Your task to perform on an android device: What's the weather going to be tomorrow? Image 0: 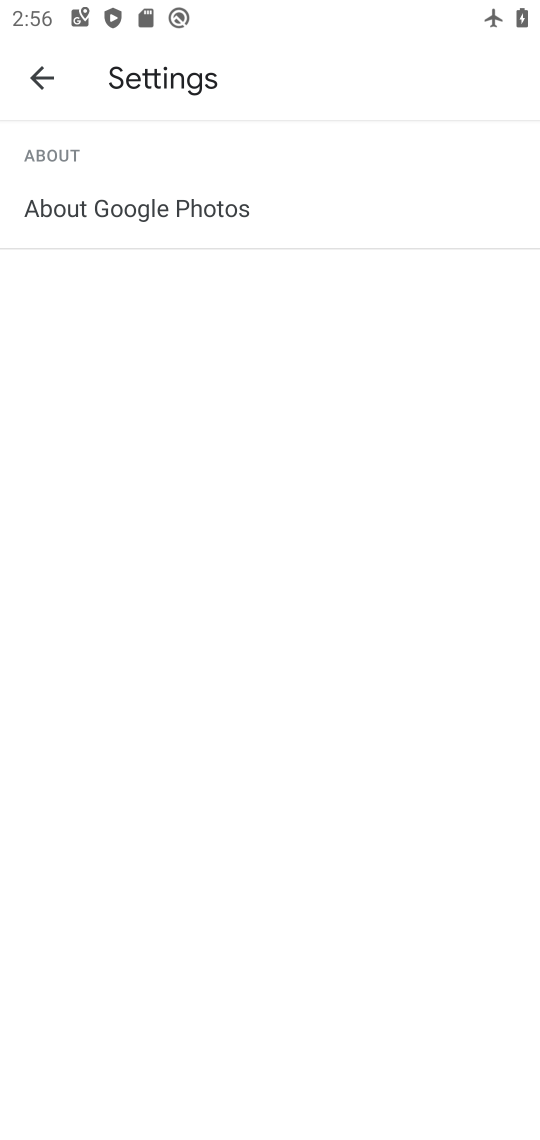
Step 0: press home button
Your task to perform on an android device: What's the weather going to be tomorrow? Image 1: 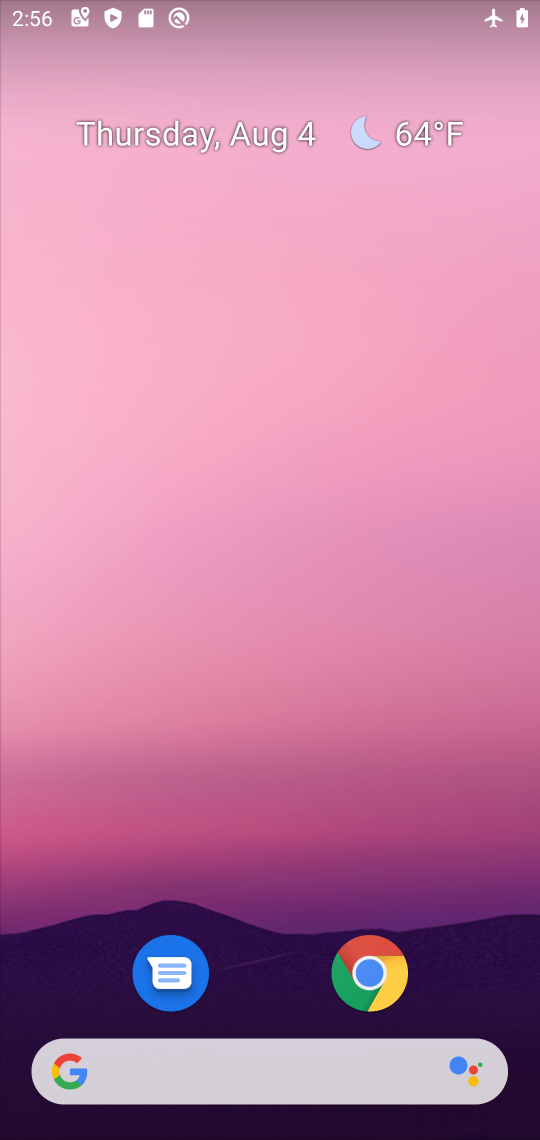
Step 1: drag from (270, 1011) to (483, 550)
Your task to perform on an android device: What's the weather going to be tomorrow? Image 2: 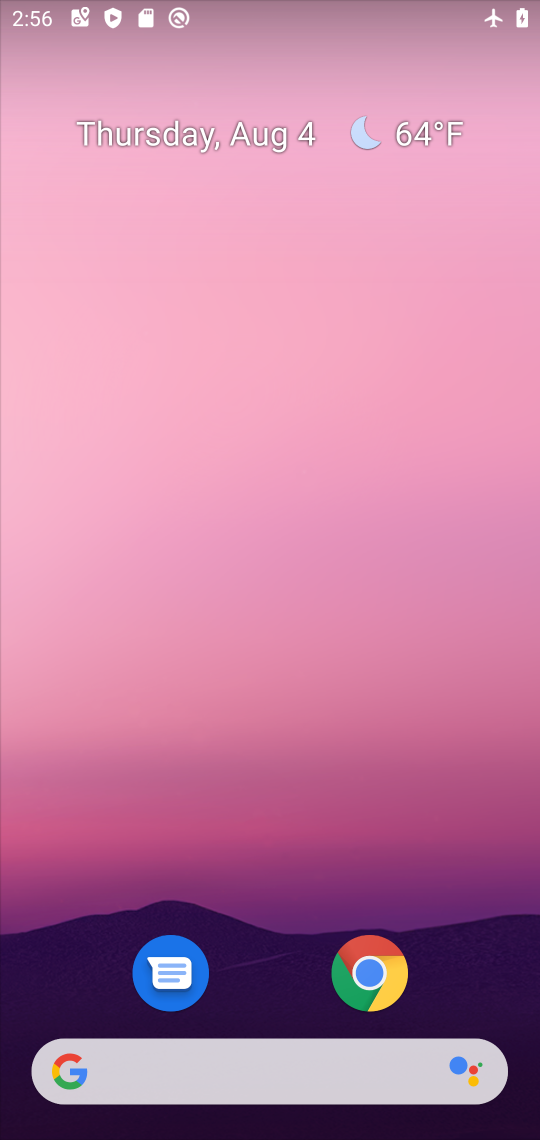
Step 2: drag from (292, 970) to (241, 24)
Your task to perform on an android device: What's the weather going to be tomorrow? Image 3: 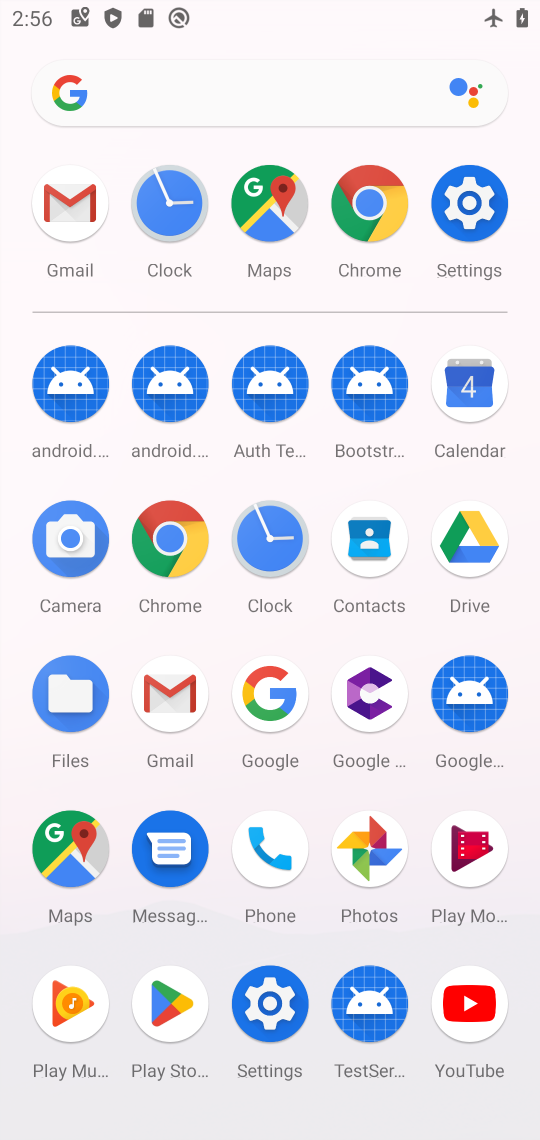
Step 3: click (266, 710)
Your task to perform on an android device: What's the weather going to be tomorrow? Image 4: 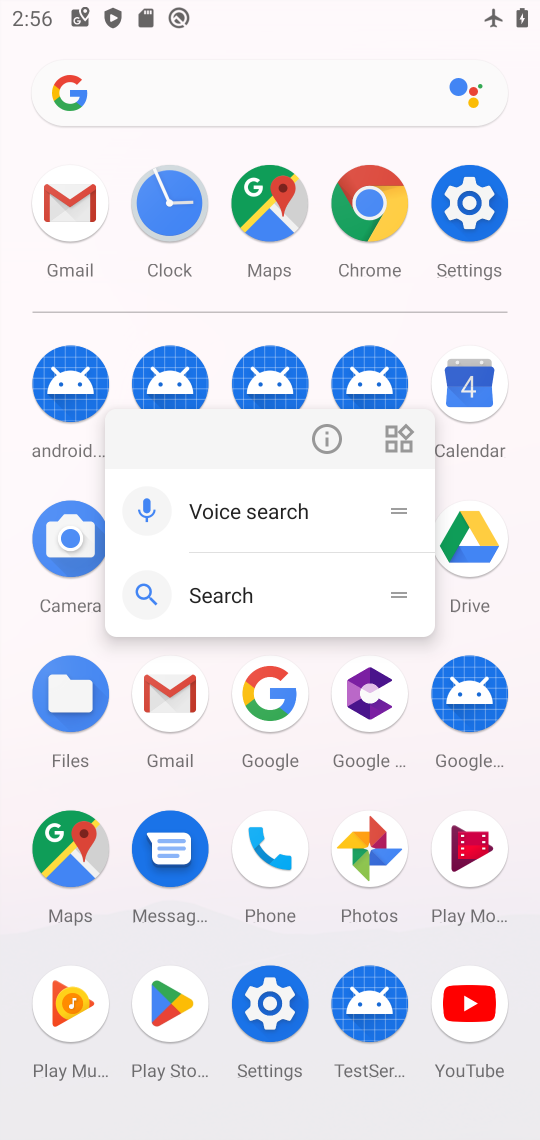
Step 4: click (245, 727)
Your task to perform on an android device: What's the weather going to be tomorrow? Image 5: 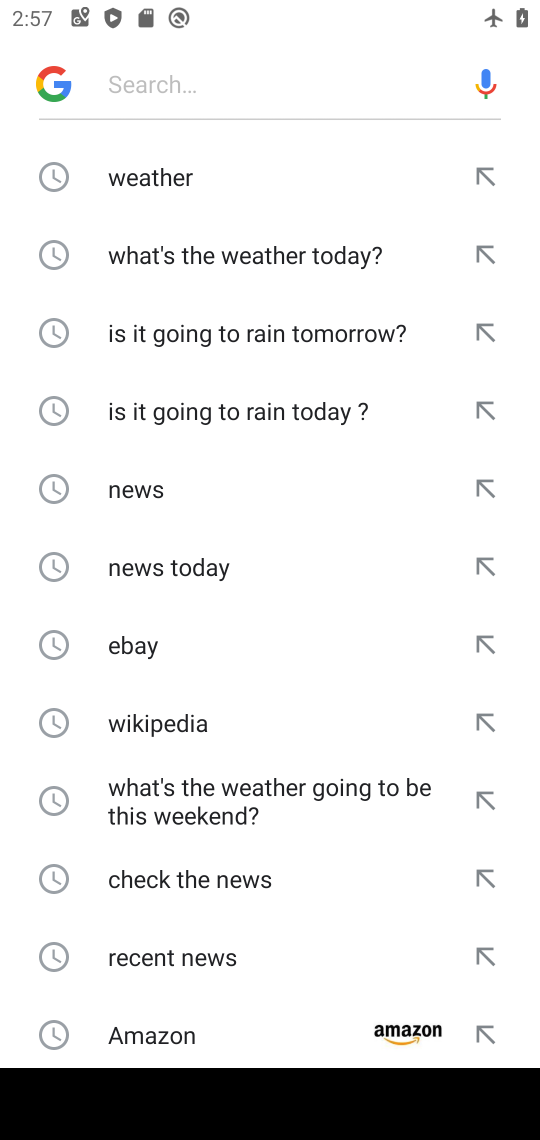
Step 5: click (194, 173)
Your task to perform on an android device: What's the weather going to be tomorrow? Image 6: 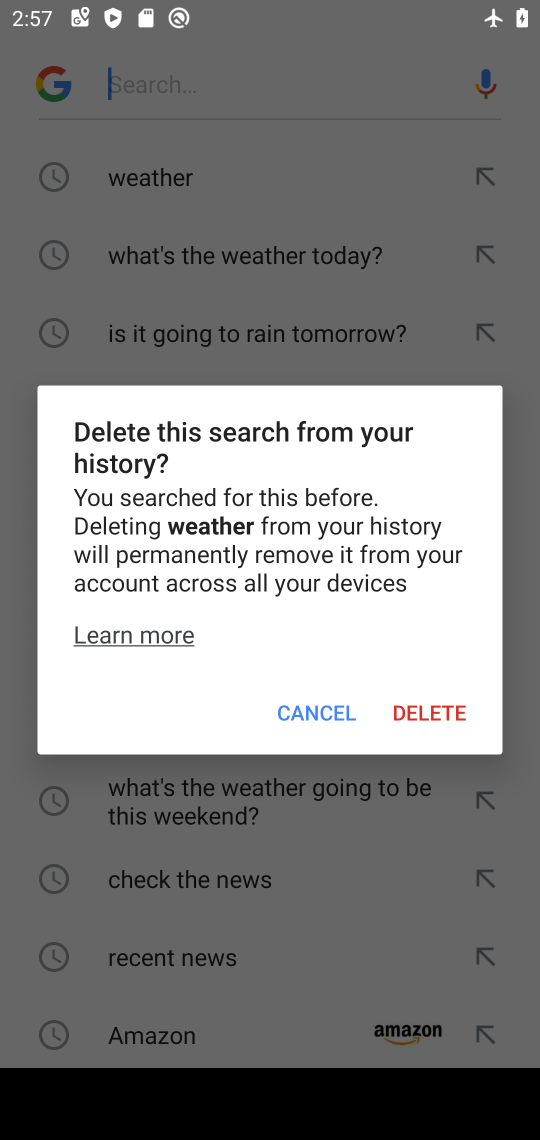
Step 6: task complete